Your task to perform on an android device: toggle airplane mode Image 0: 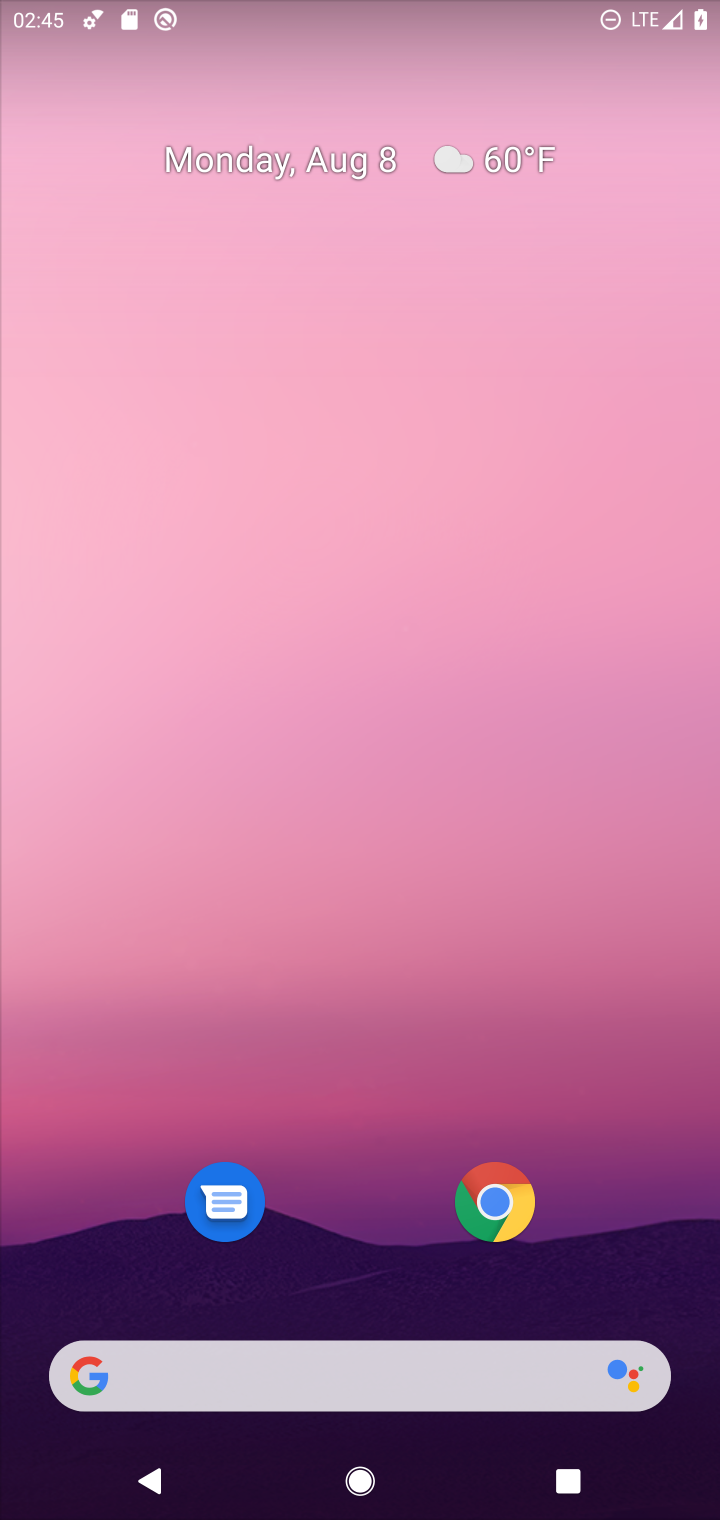
Step 0: press home button
Your task to perform on an android device: toggle airplane mode Image 1: 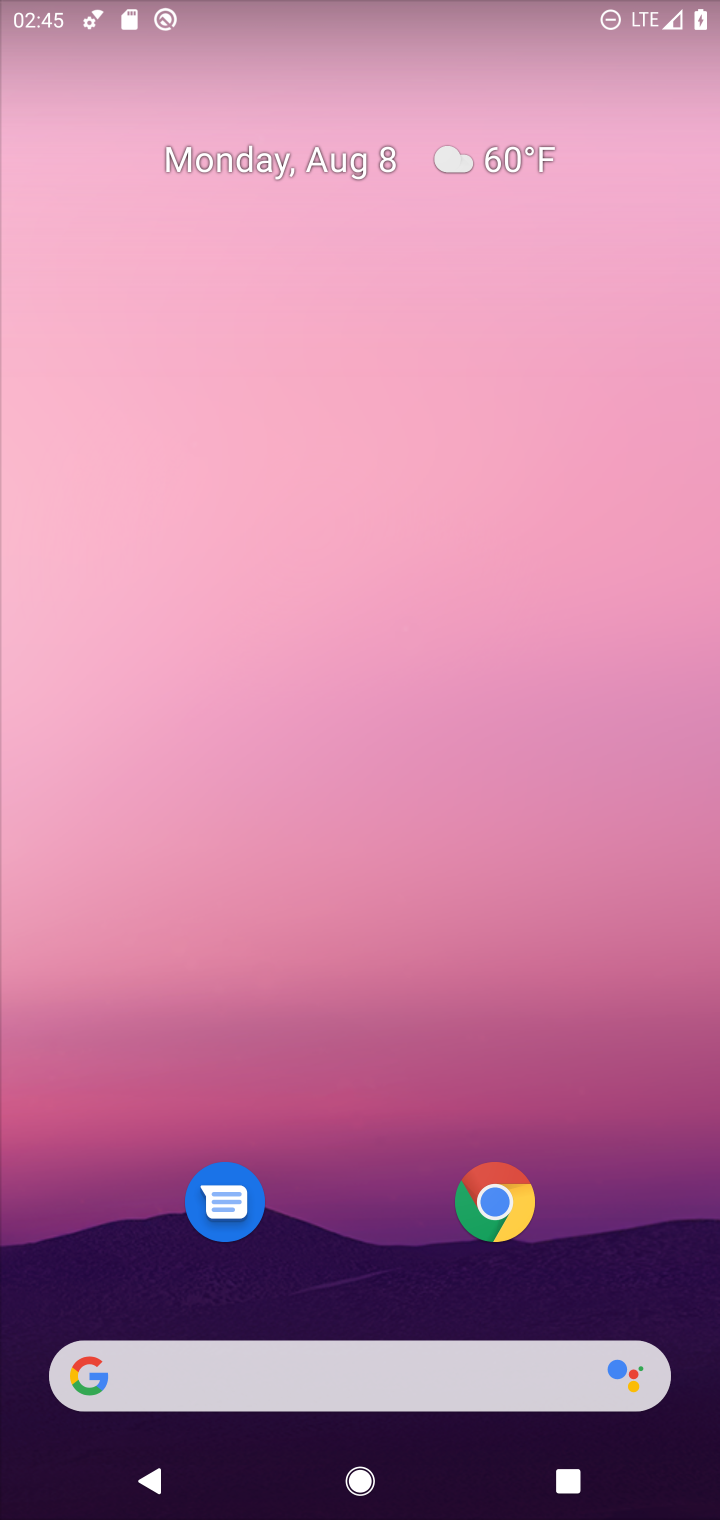
Step 1: drag from (368, 1262) to (478, 45)
Your task to perform on an android device: toggle airplane mode Image 2: 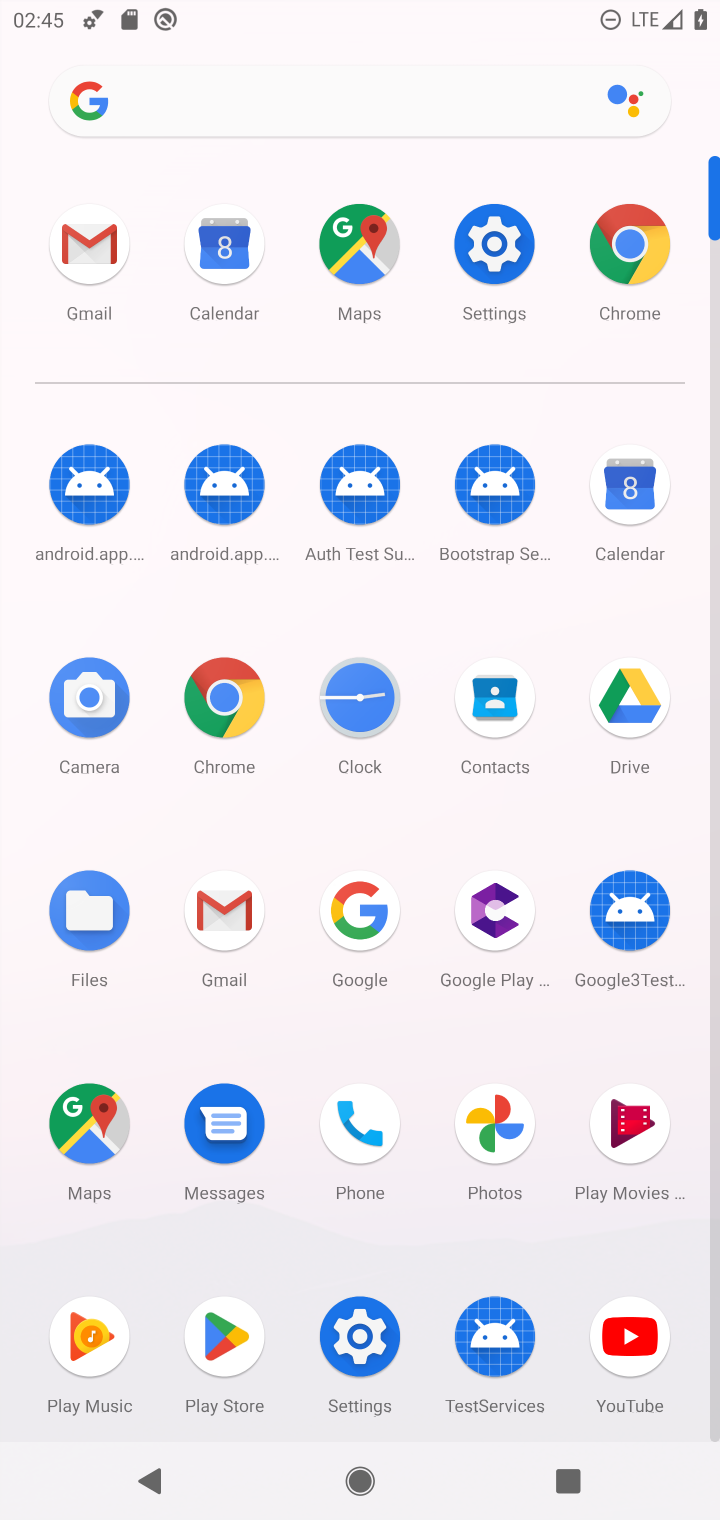
Step 2: click (495, 238)
Your task to perform on an android device: toggle airplane mode Image 3: 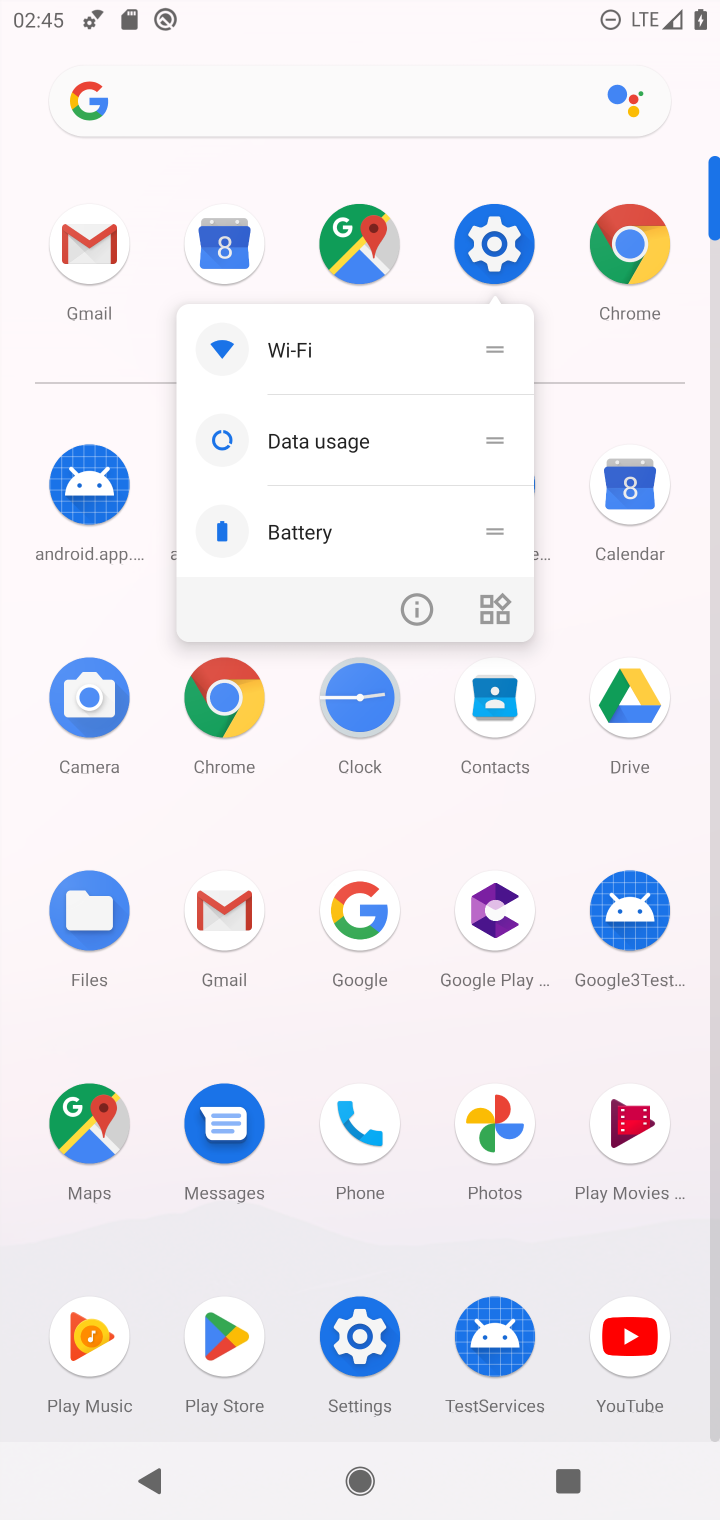
Step 3: click (493, 241)
Your task to perform on an android device: toggle airplane mode Image 4: 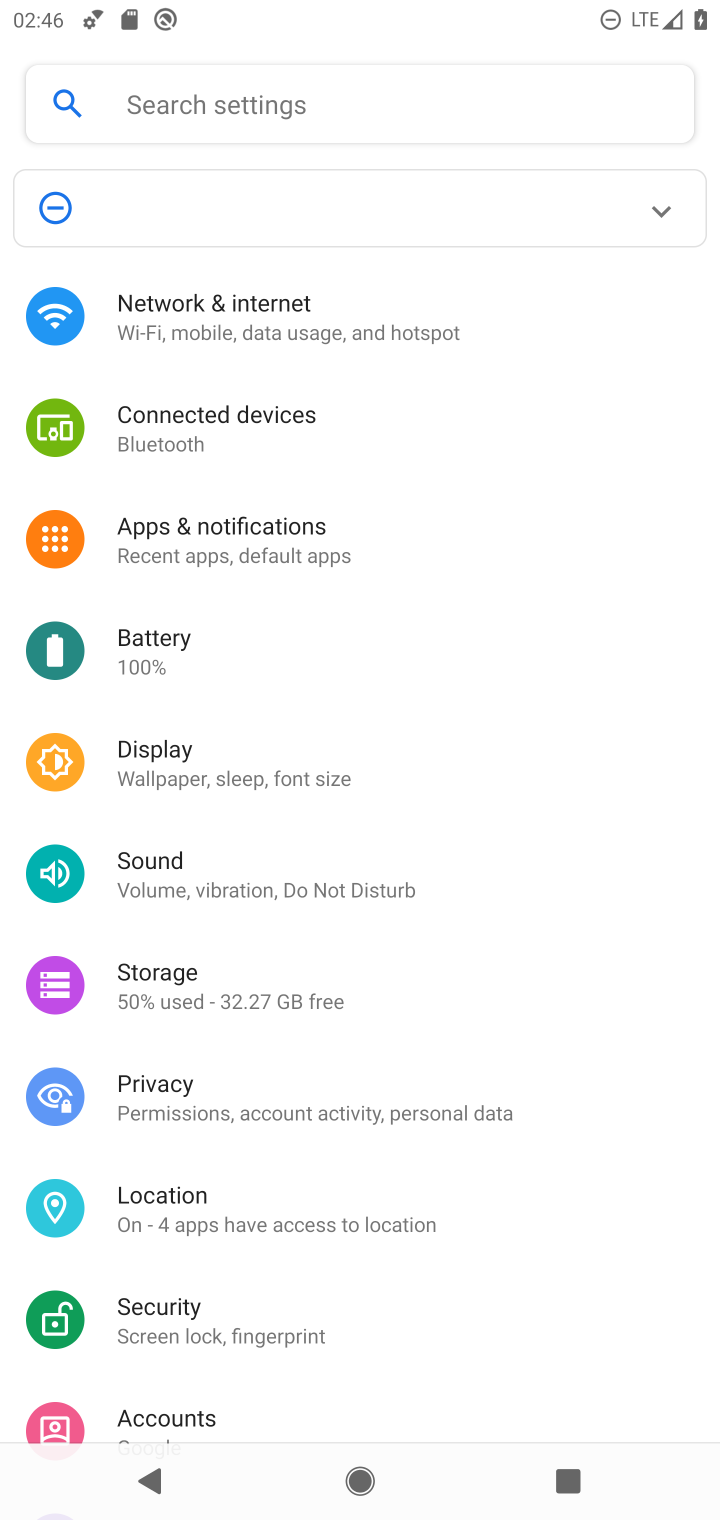
Step 4: drag from (605, 1102) to (615, 611)
Your task to perform on an android device: toggle airplane mode Image 5: 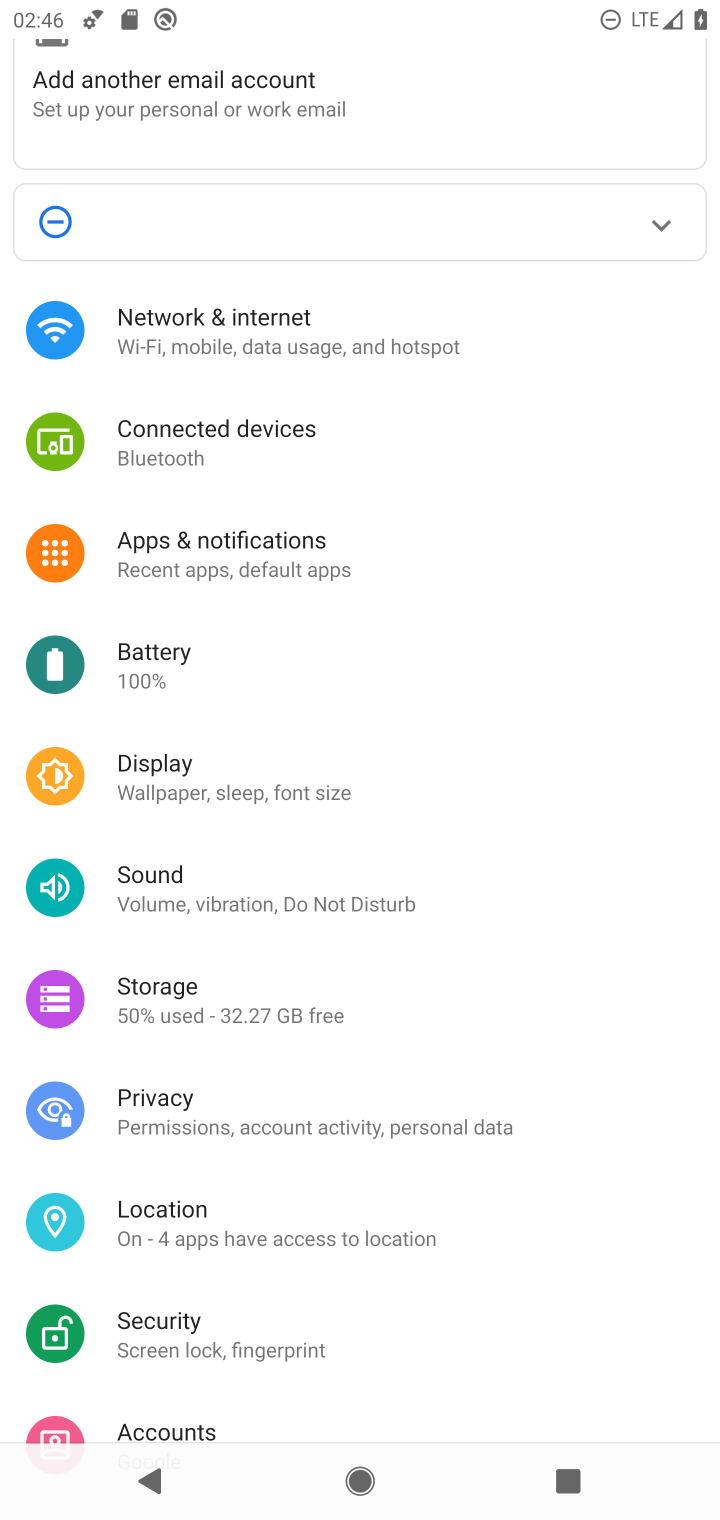
Step 5: drag from (600, 1025) to (596, 654)
Your task to perform on an android device: toggle airplane mode Image 6: 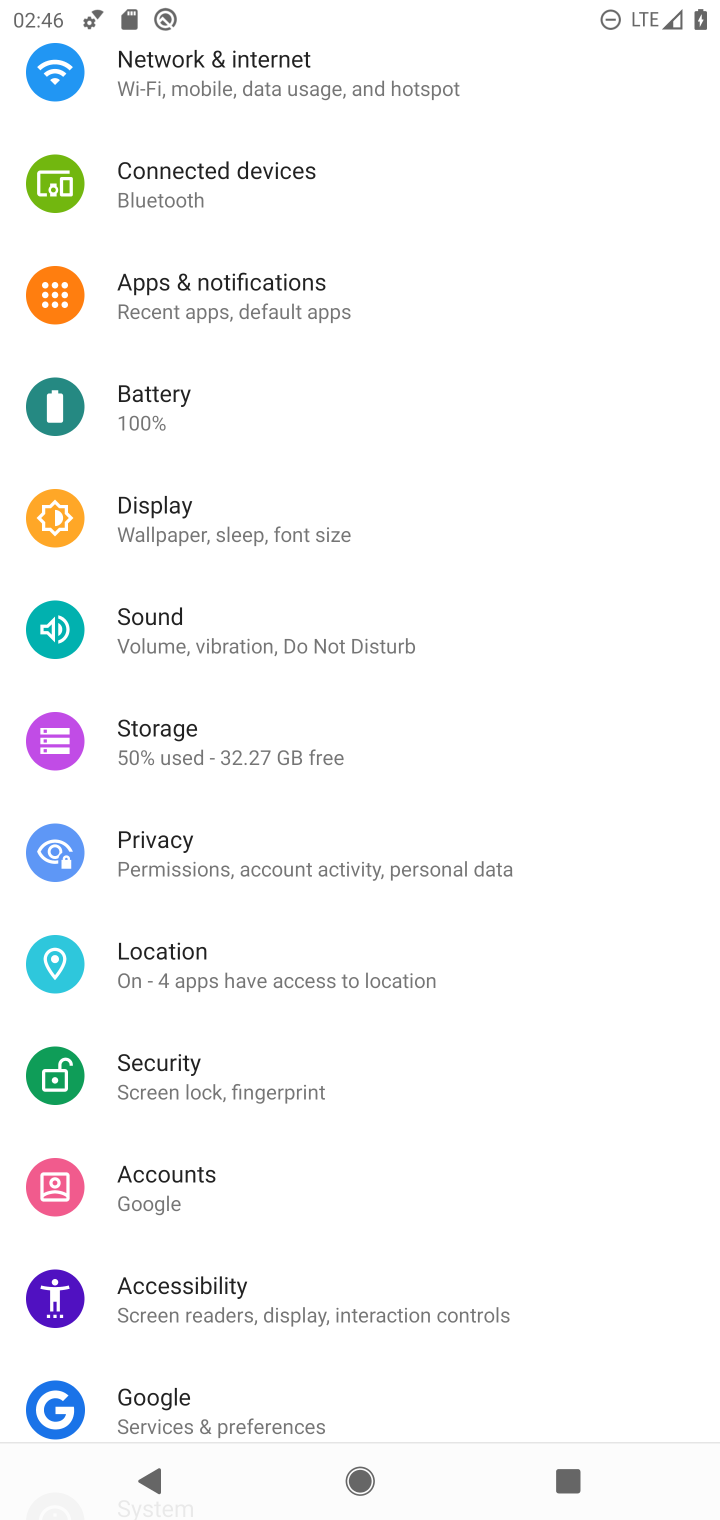
Step 6: drag from (598, 1067) to (602, 729)
Your task to perform on an android device: toggle airplane mode Image 7: 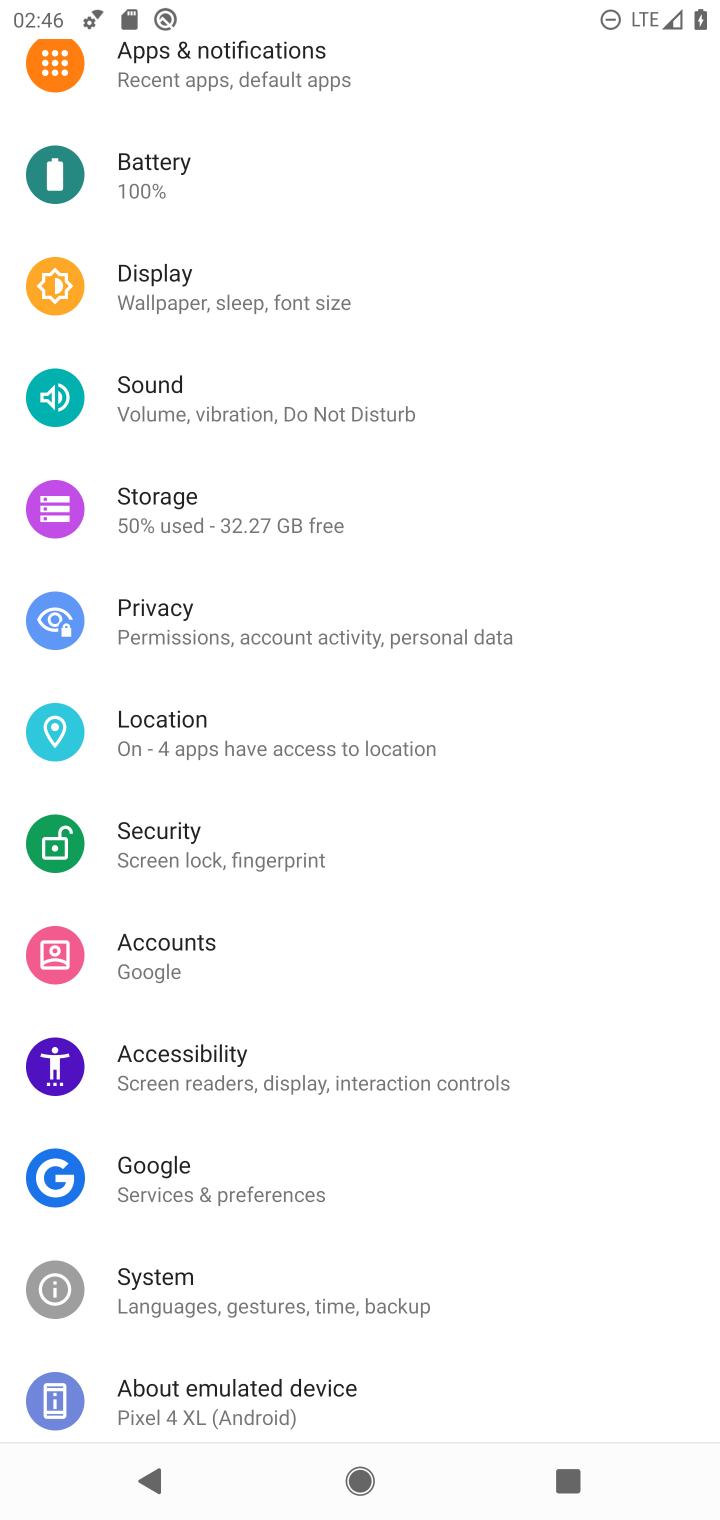
Step 7: drag from (604, 1066) to (604, 796)
Your task to perform on an android device: toggle airplane mode Image 8: 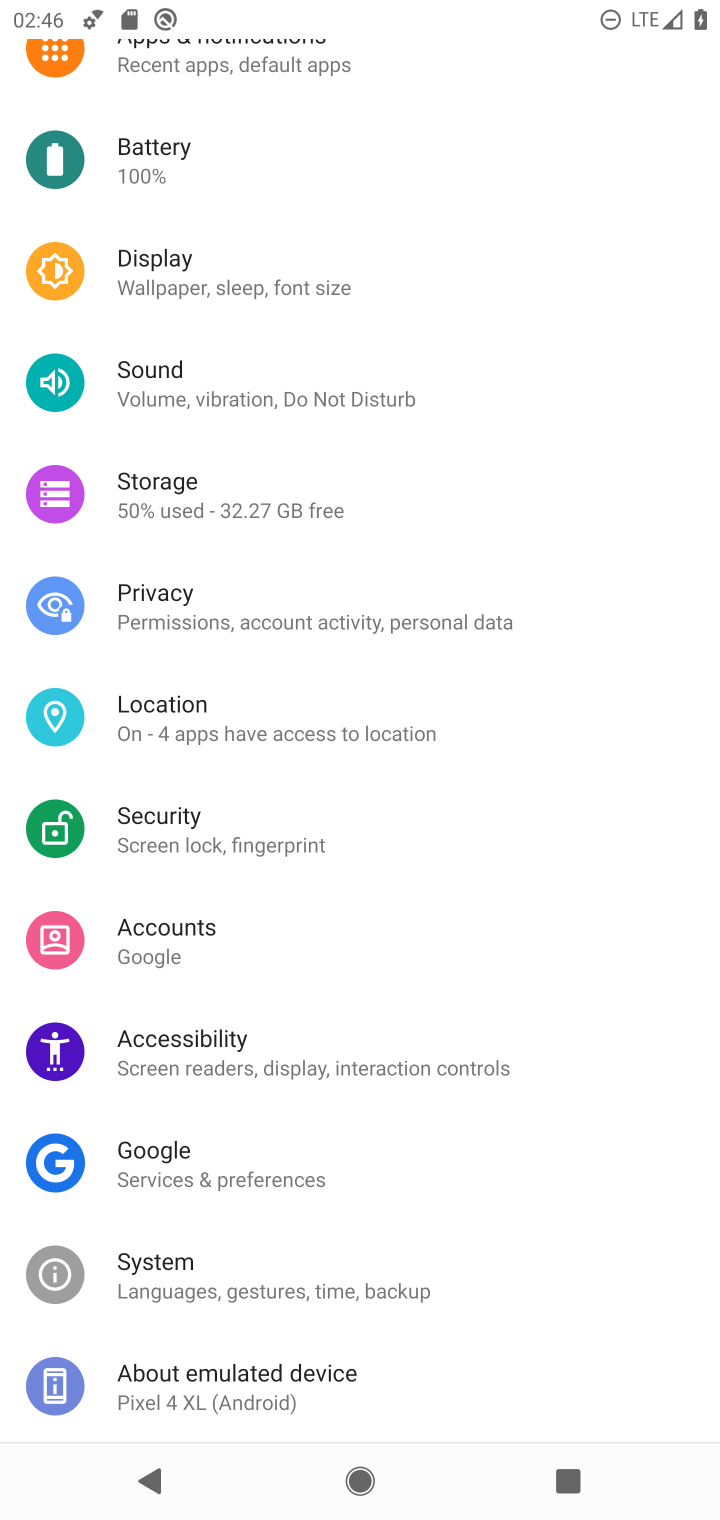
Step 8: drag from (628, 675) to (640, 1081)
Your task to perform on an android device: toggle airplane mode Image 9: 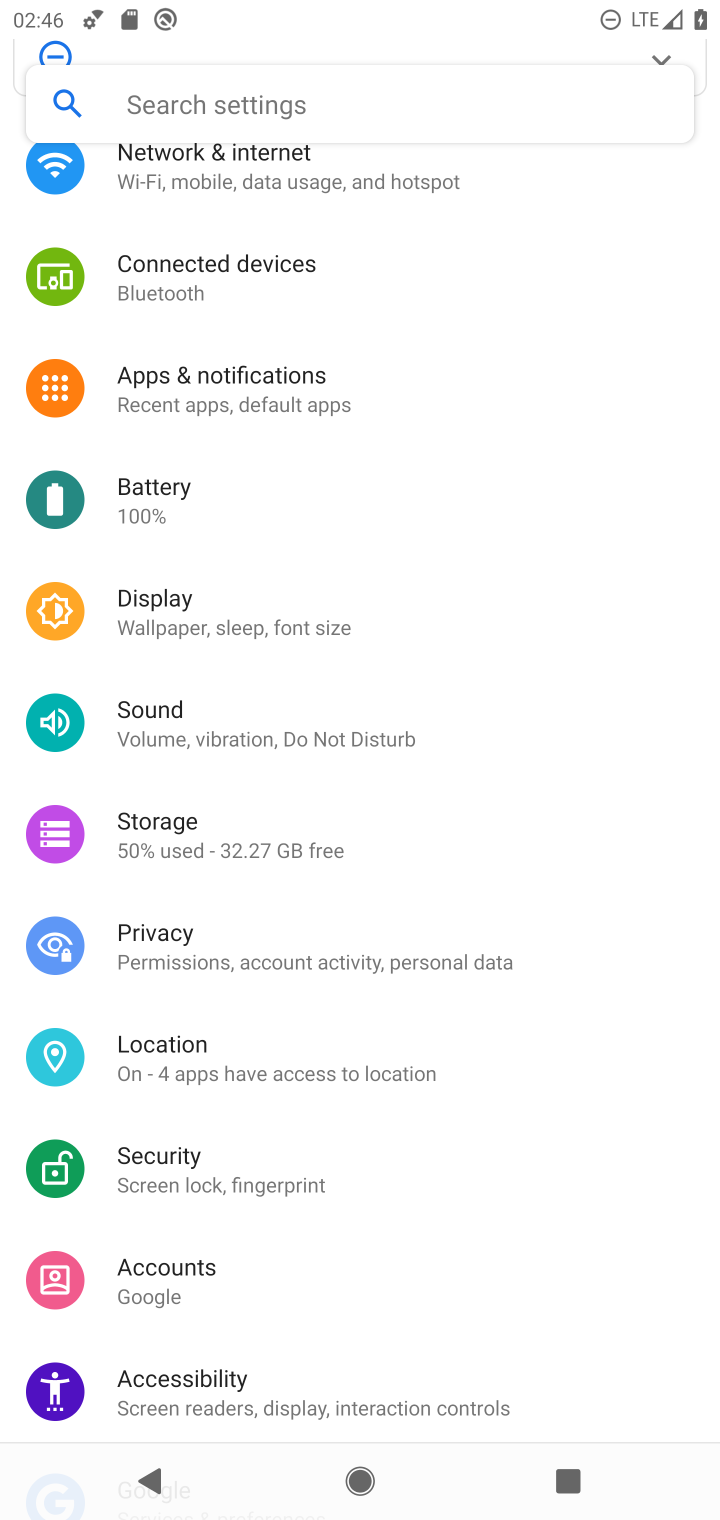
Step 9: drag from (598, 454) to (604, 955)
Your task to perform on an android device: toggle airplane mode Image 10: 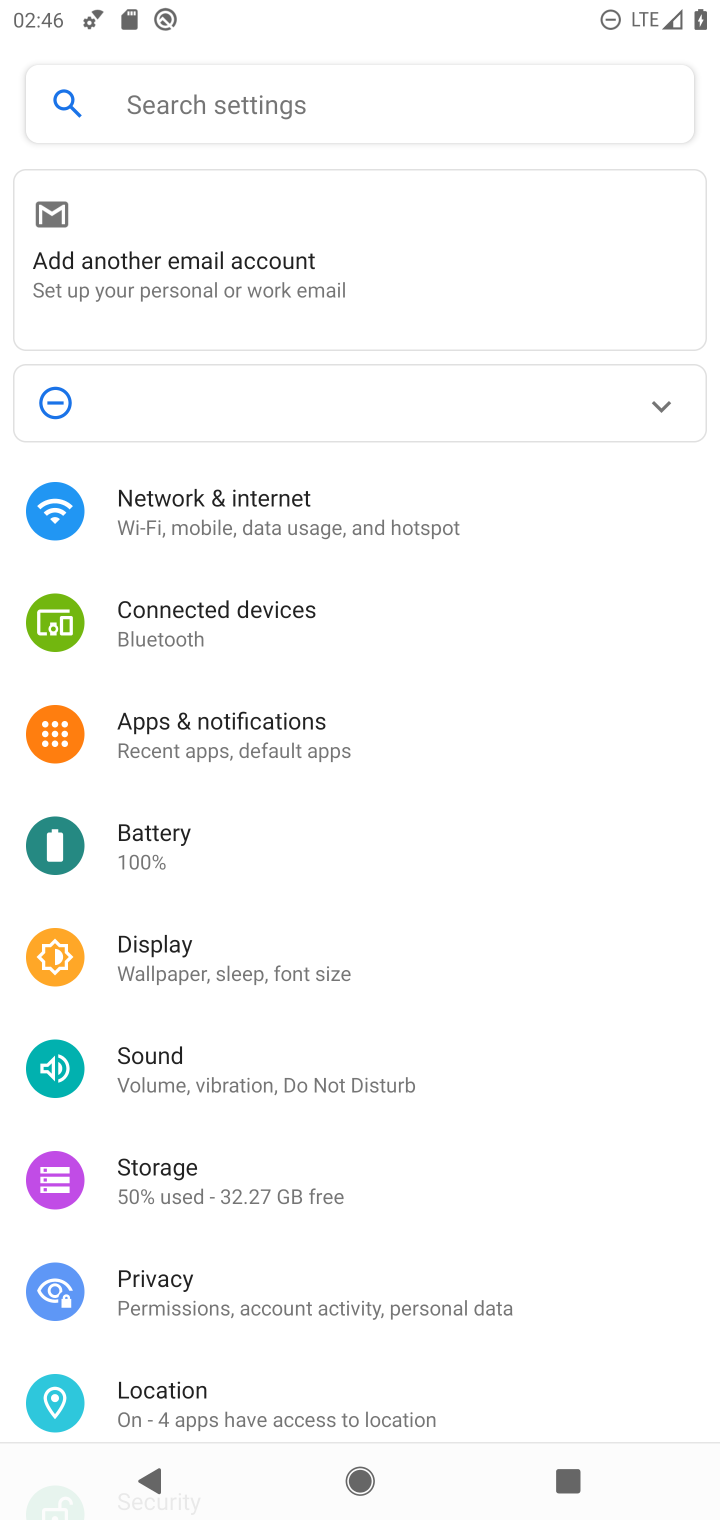
Step 10: drag from (612, 498) to (600, 924)
Your task to perform on an android device: toggle airplane mode Image 11: 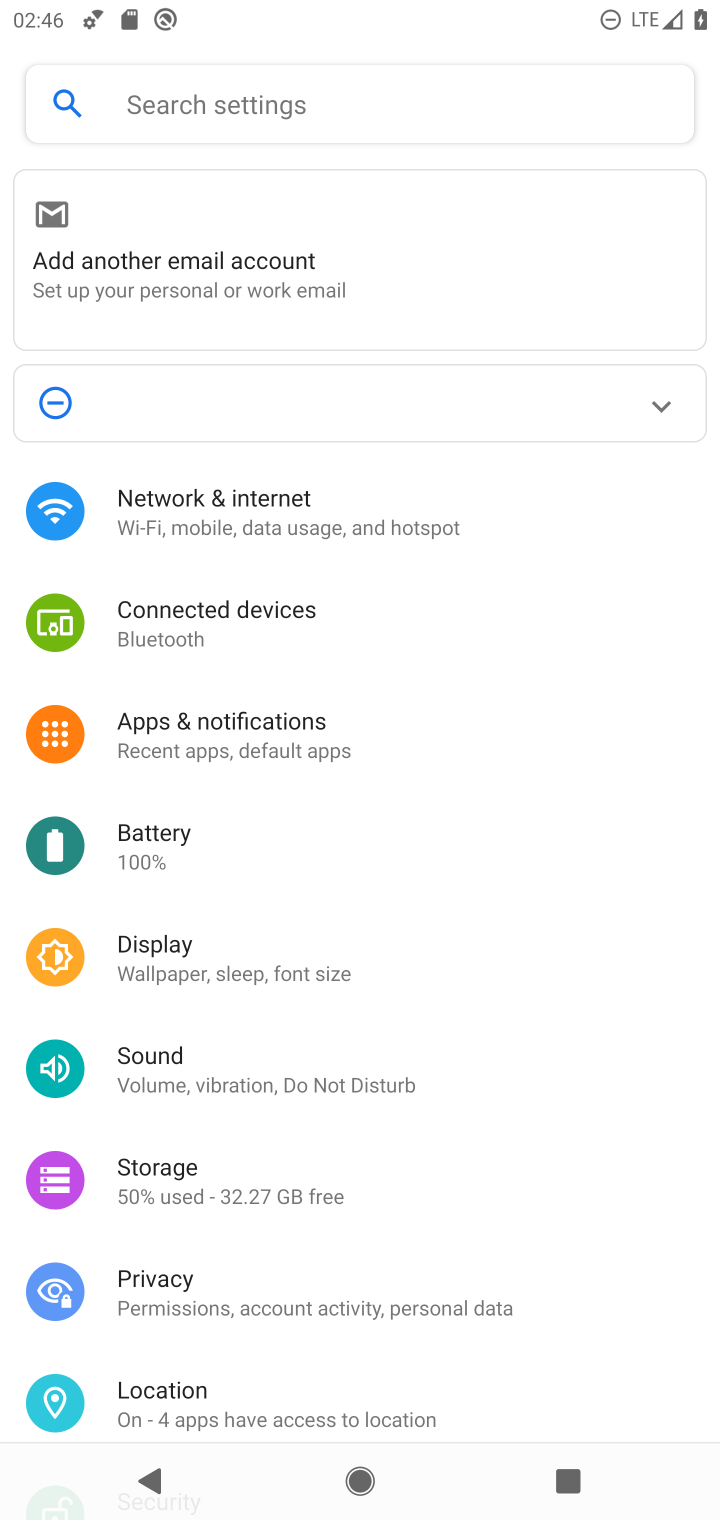
Step 11: drag from (592, 1059) to (608, 615)
Your task to perform on an android device: toggle airplane mode Image 12: 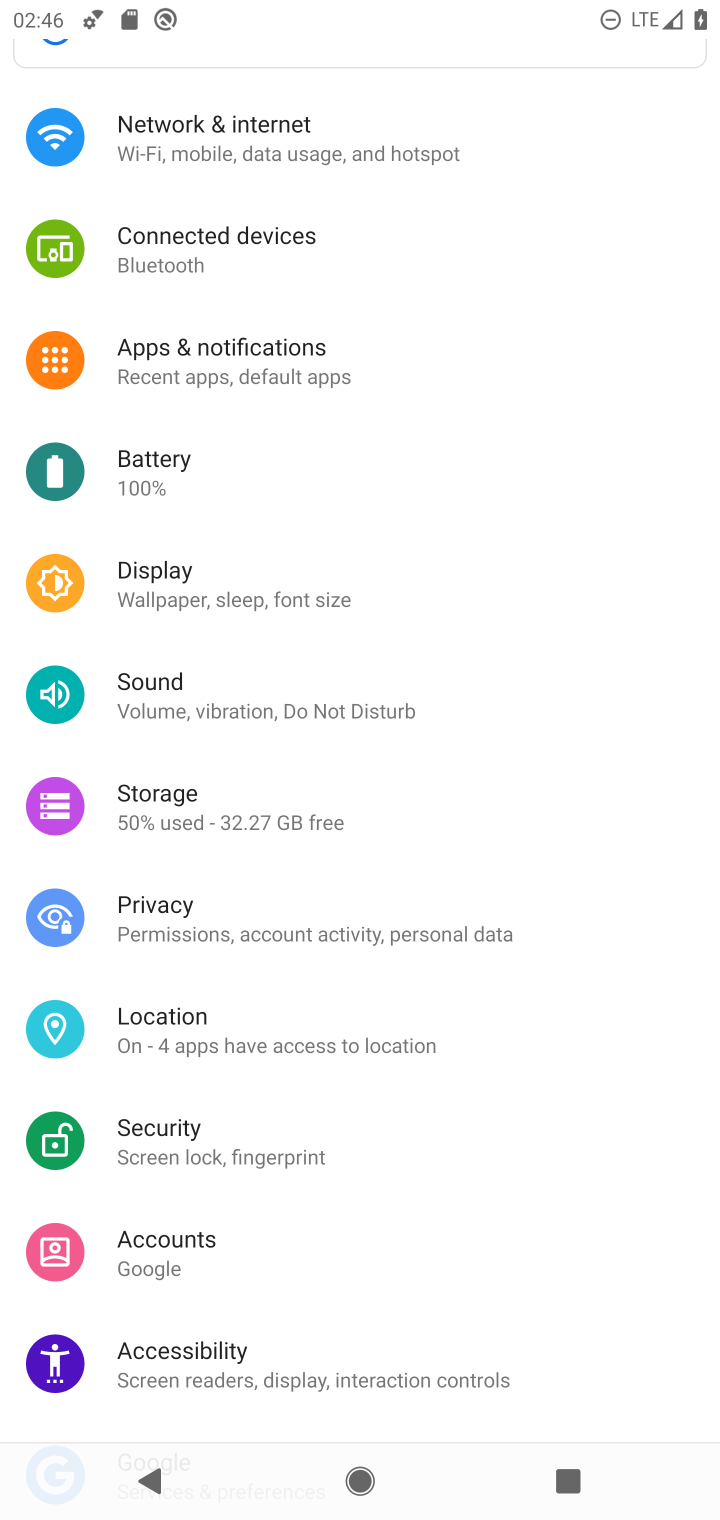
Step 12: drag from (583, 1023) to (594, 537)
Your task to perform on an android device: toggle airplane mode Image 13: 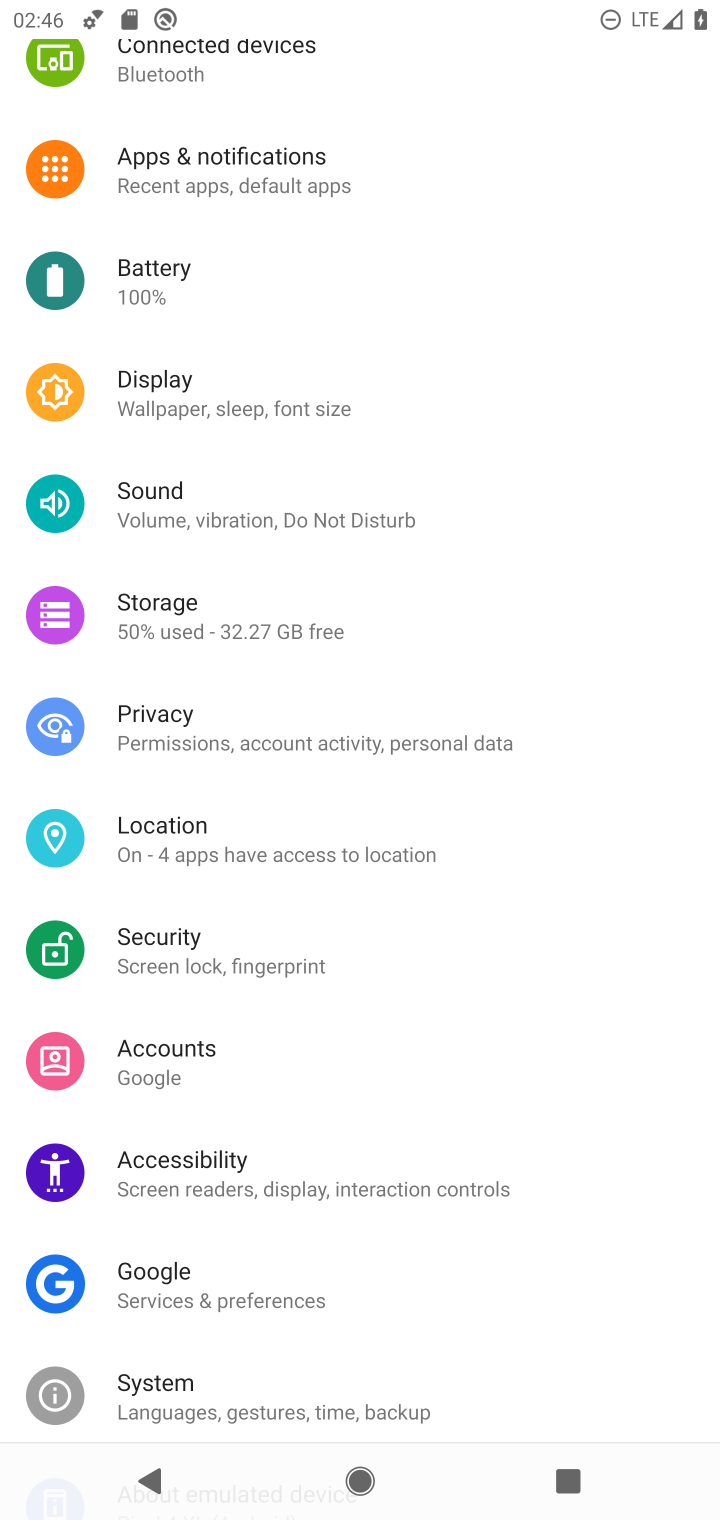
Step 13: drag from (555, 1068) to (583, 639)
Your task to perform on an android device: toggle airplane mode Image 14: 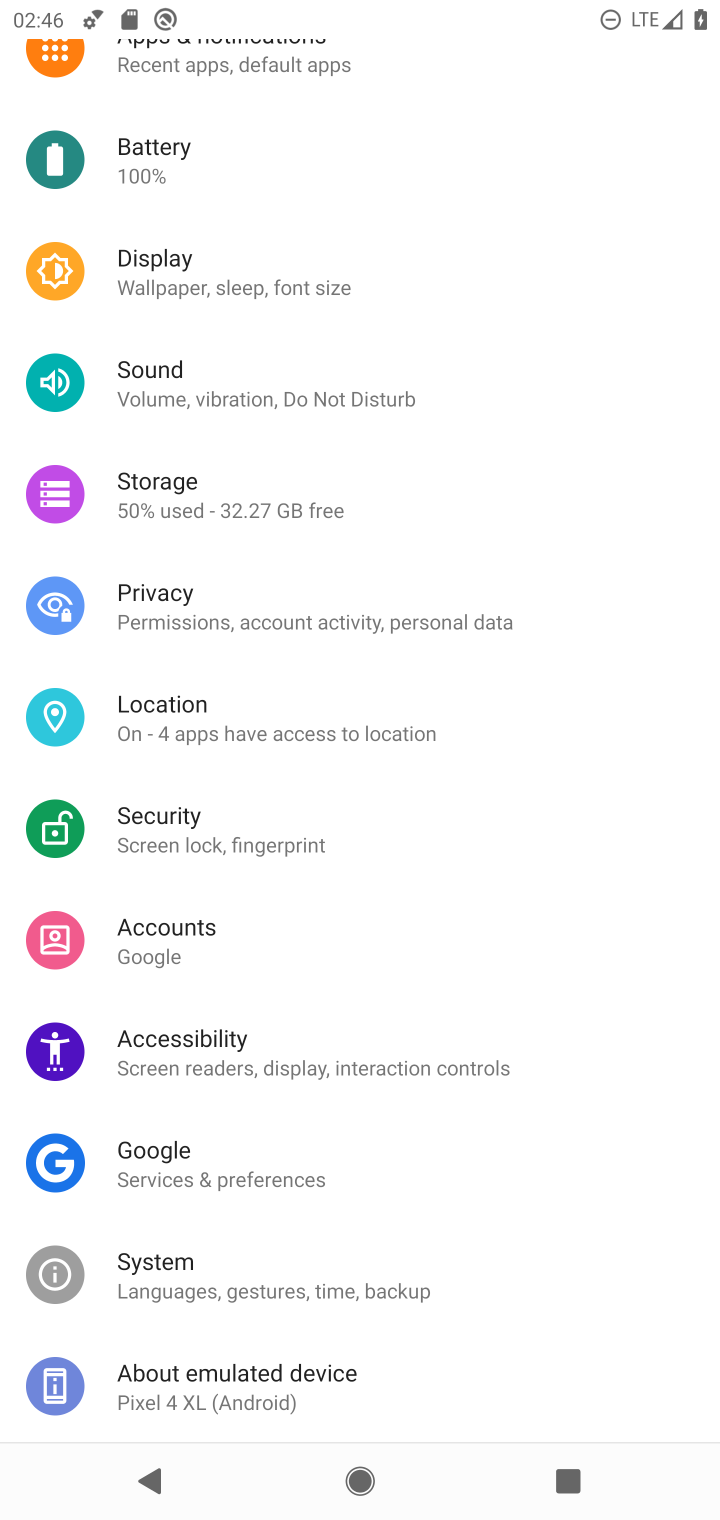
Step 14: drag from (607, 423) to (611, 828)
Your task to perform on an android device: toggle airplane mode Image 15: 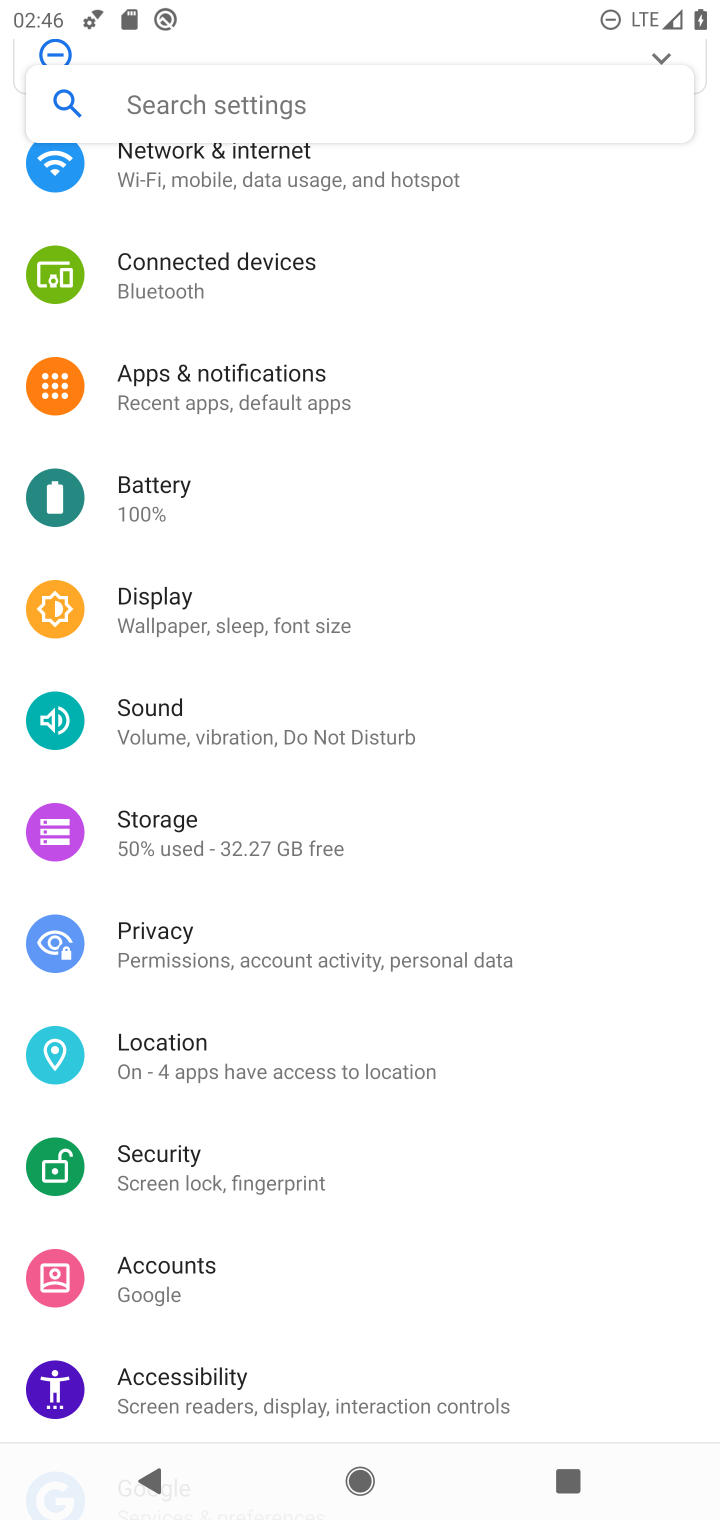
Step 15: drag from (588, 378) to (578, 861)
Your task to perform on an android device: toggle airplane mode Image 16: 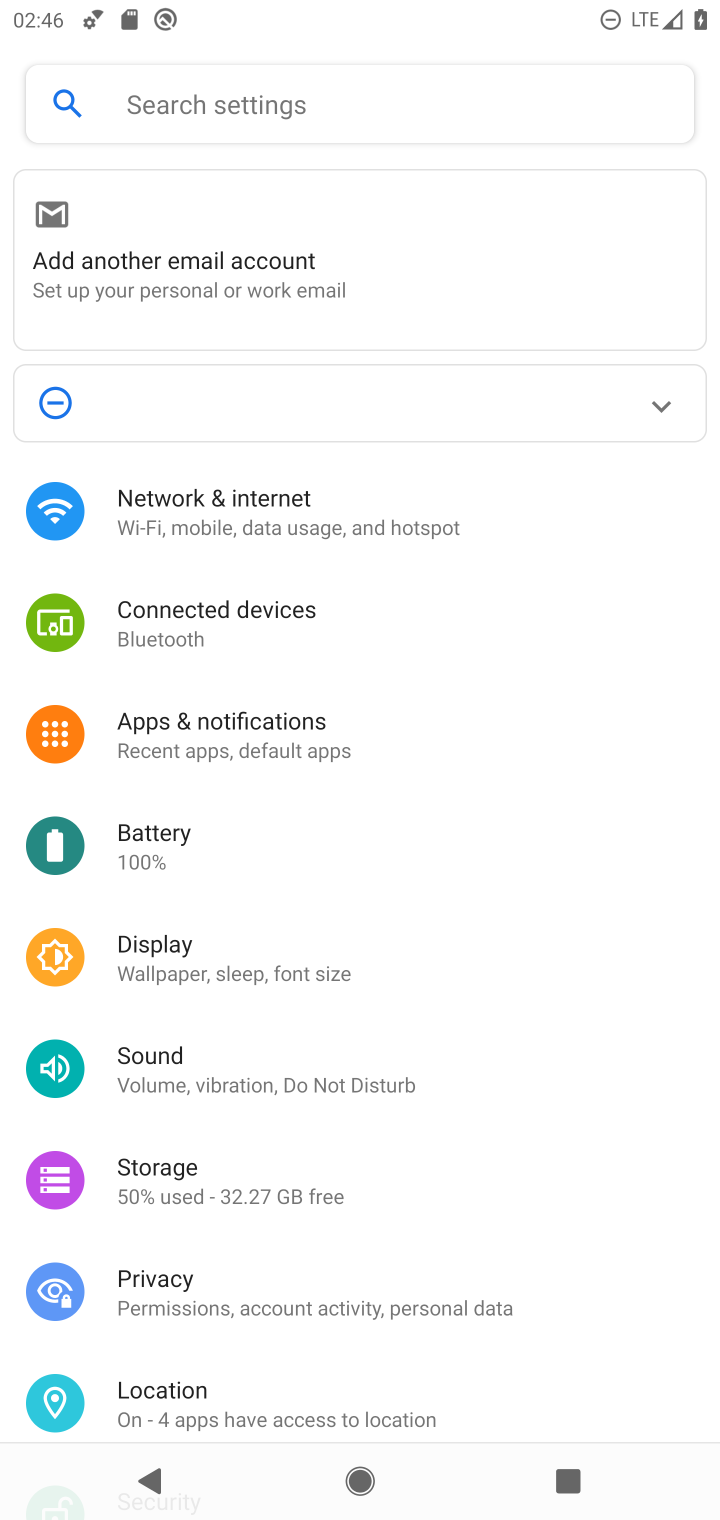
Step 16: click (407, 507)
Your task to perform on an android device: toggle airplane mode Image 17: 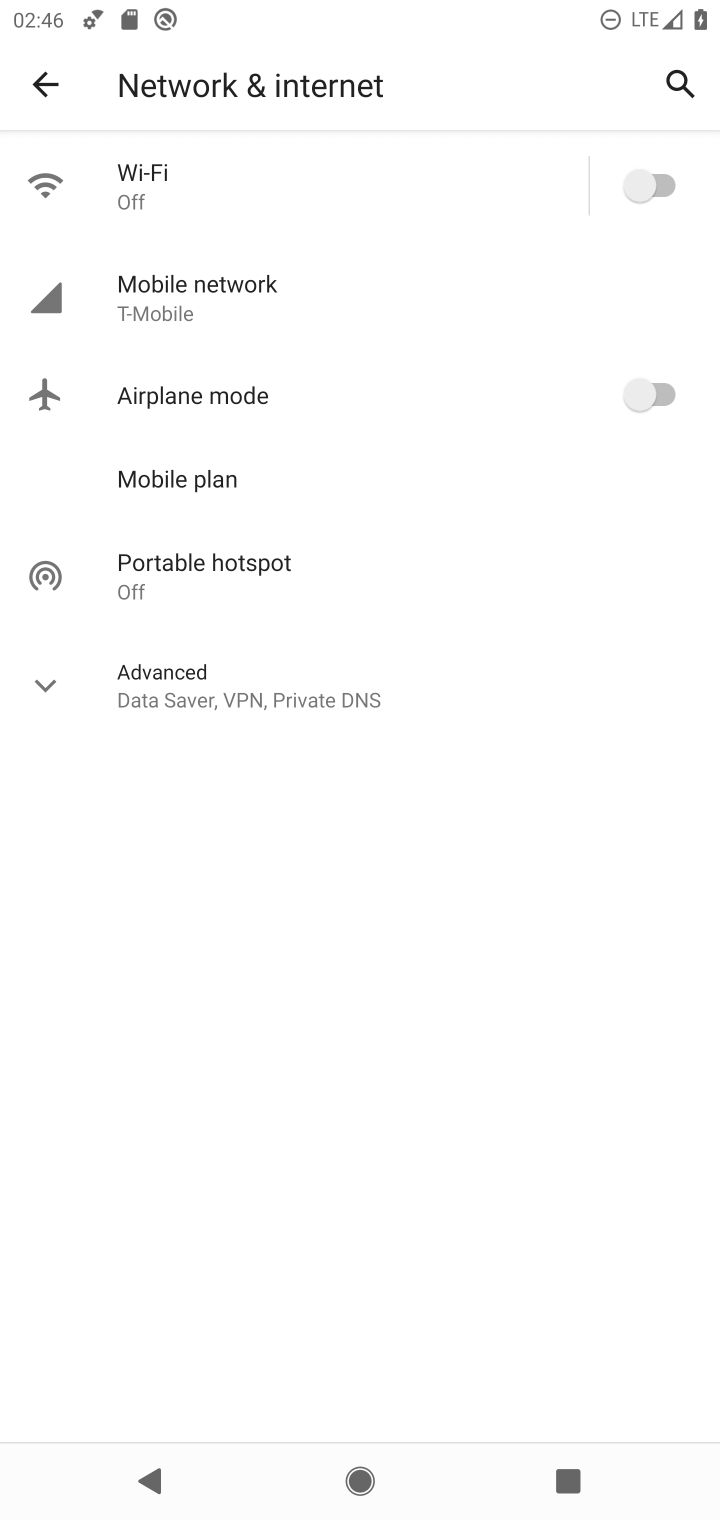
Step 17: click (639, 393)
Your task to perform on an android device: toggle airplane mode Image 18: 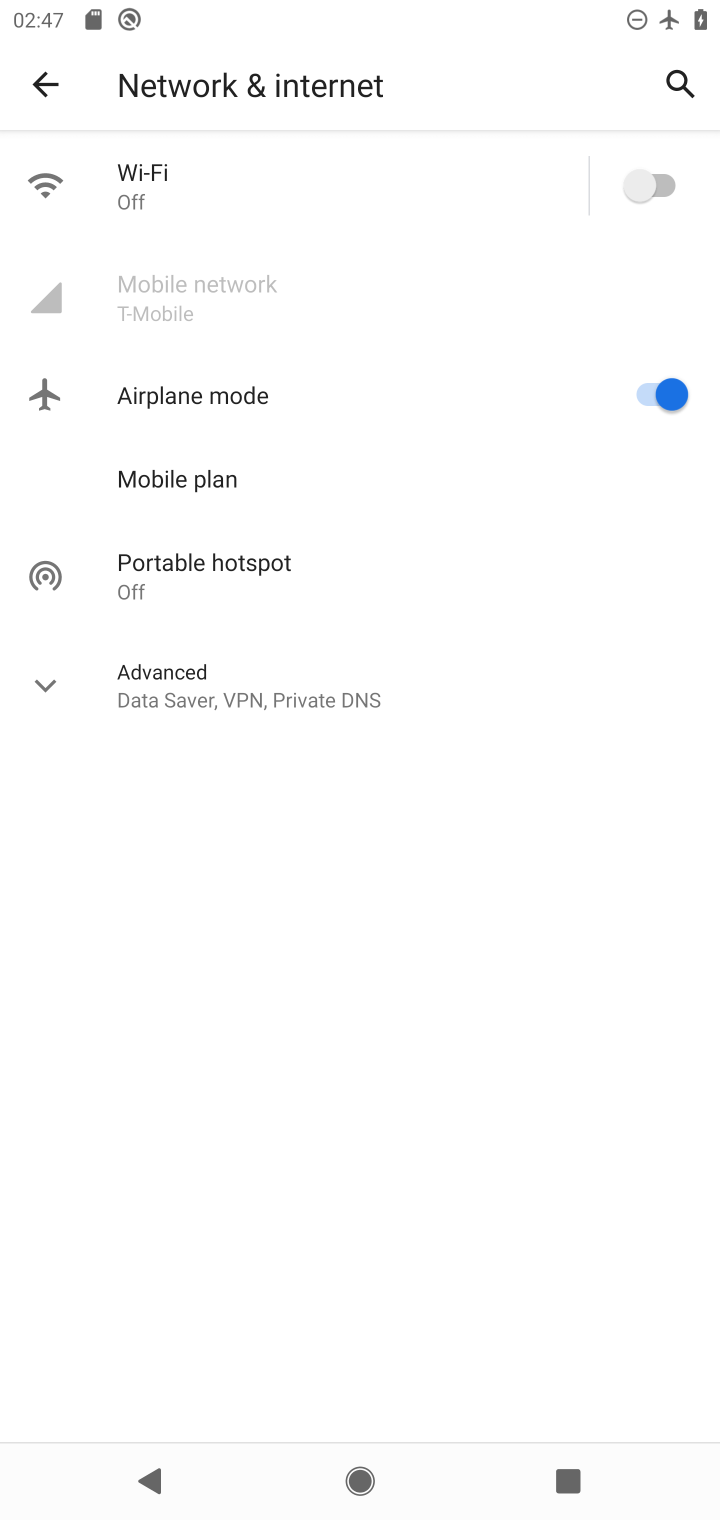
Step 18: task complete